Your task to perform on an android device: turn off smart reply in the gmail app Image 0: 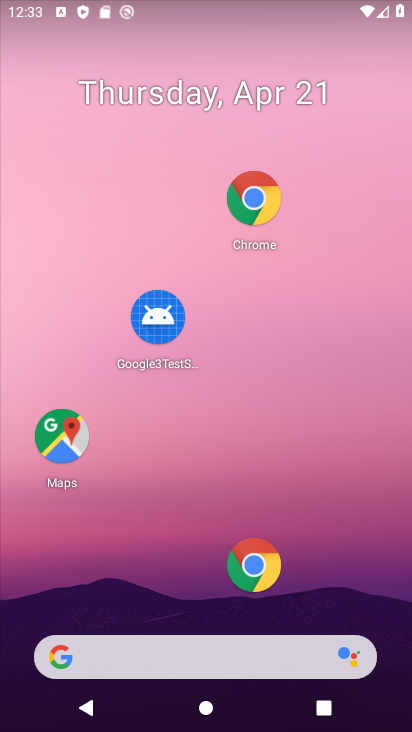
Step 0: drag from (203, 526) to (245, 118)
Your task to perform on an android device: turn off smart reply in the gmail app Image 1: 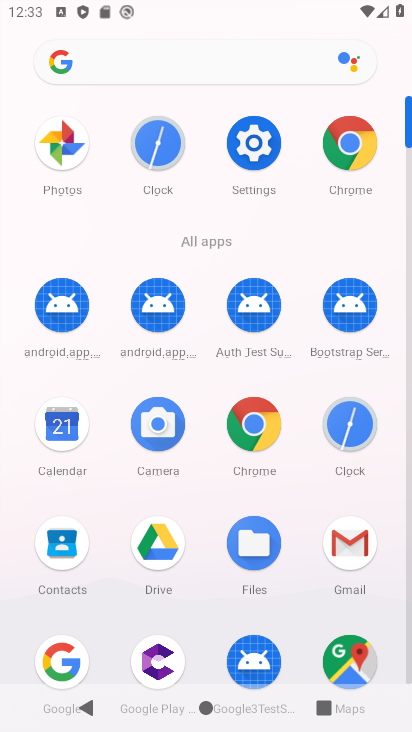
Step 1: click (351, 567)
Your task to perform on an android device: turn off smart reply in the gmail app Image 2: 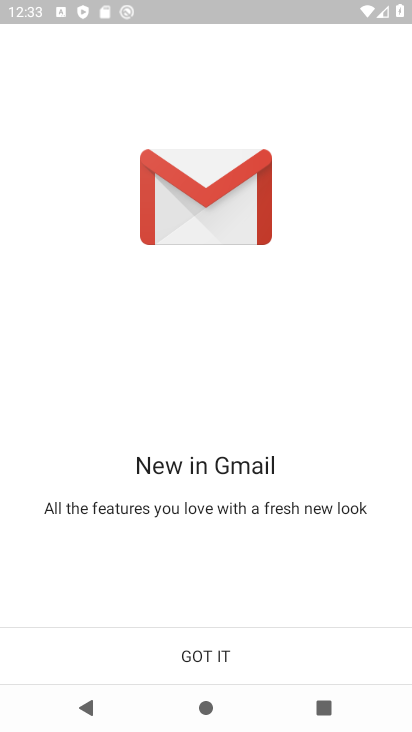
Step 2: click (234, 671)
Your task to perform on an android device: turn off smart reply in the gmail app Image 3: 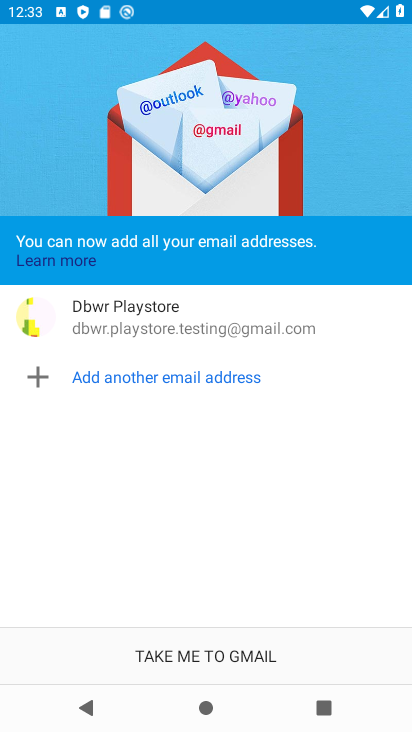
Step 3: click (212, 663)
Your task to perform on an android device: turn off smart reply in the gmail app Image 4: 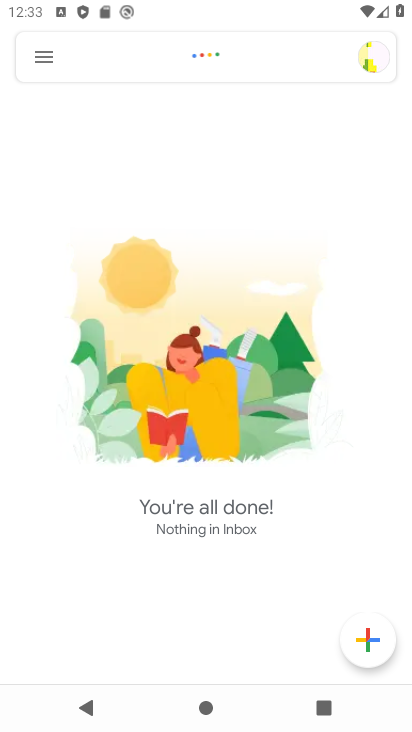
Step 4: click (39, 68)
Your task to perform on an android device: turn off smart reply in the gmail app Image 5: 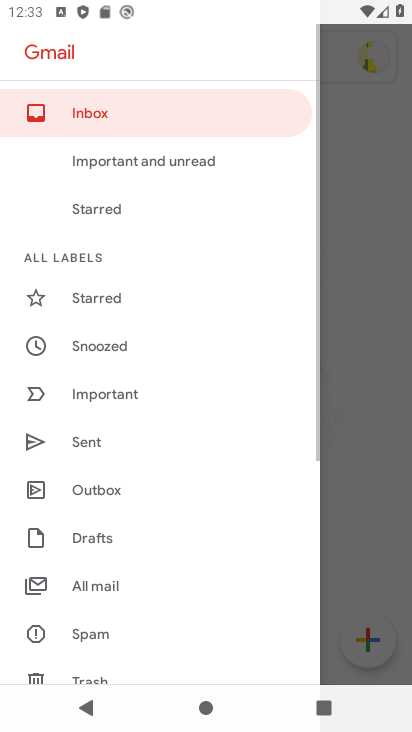
Step 5: drag from (115, 597) to (117, 245)
Your task to perform on an android device: turn off smart reply in the gmail app Image 6: 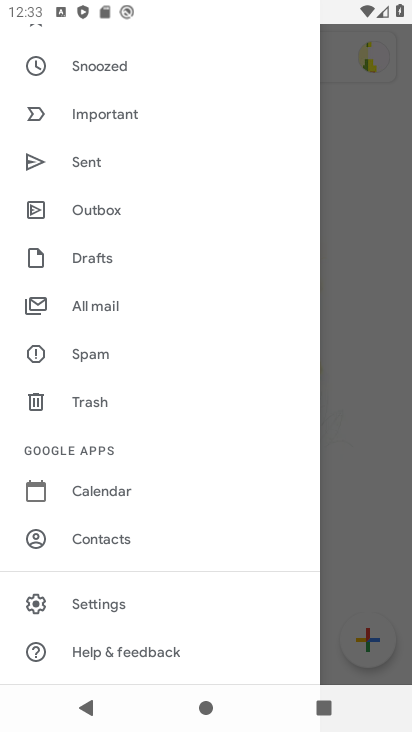
Step 6: click (135, 610)
Your task to perform on an android device: turn off smart reply in the gmail app Image 7: 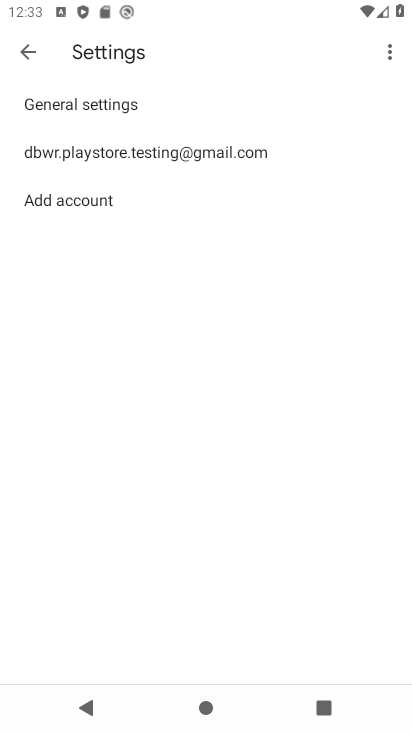
Step 7: click (118, 106)
Your task to perform on an android device: turn off smart reply in the gmail app Image 8: 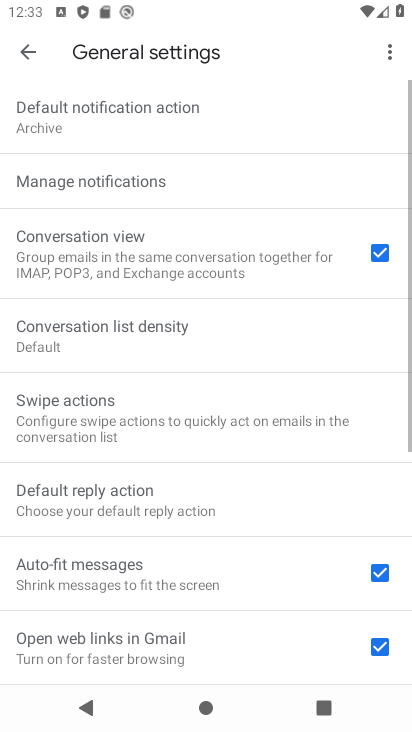
Step 8: drag from (195, 523) to (167, 236)
Your task to perform on an android device: turn off smart reply in the gmail app Image 9: 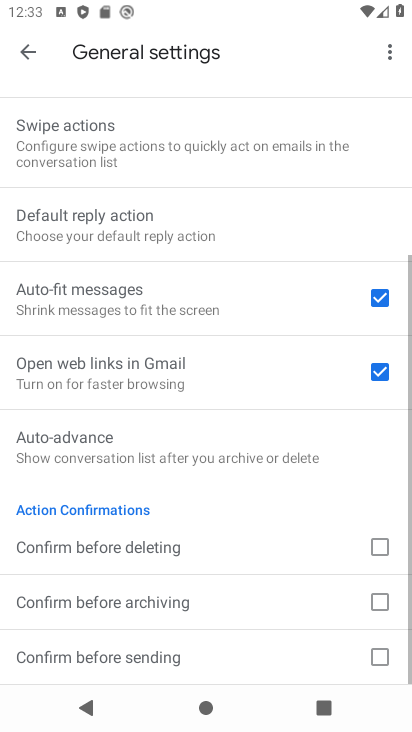
Step 9: drag from (215, 560) to (188, 258)
Your task to perform on an android device: turn off smart reply in the gmail app Image 10: 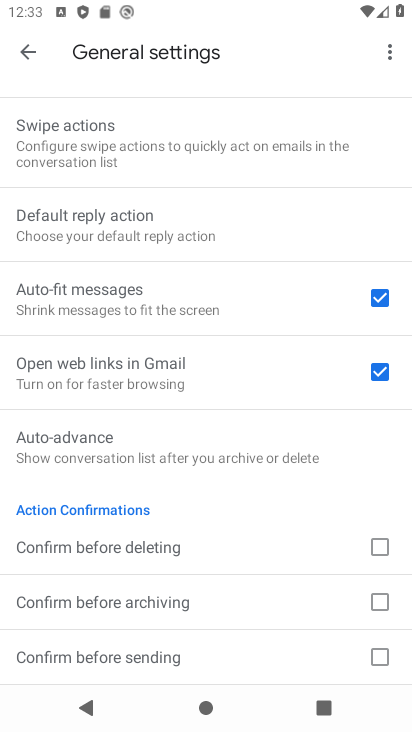
Step 10: drag from (186, 282) to (184, 548)
Your task to perform on an android device: turn off smart reply in the gmail app Image 11: 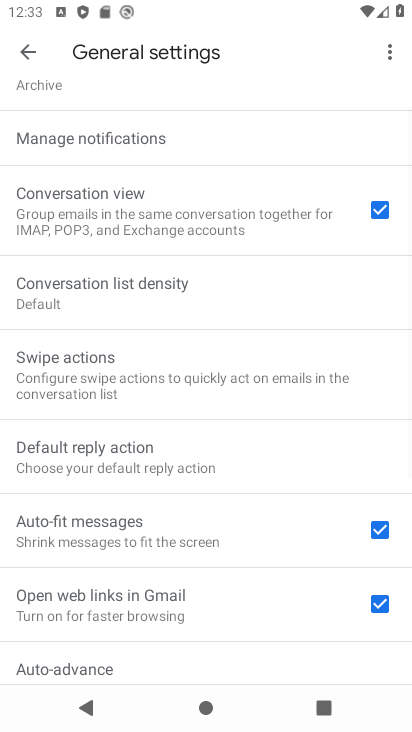
Step 11: click (27, 66)
Your task to perform on an android device: turn off smart reply in the gmail app Image 12: 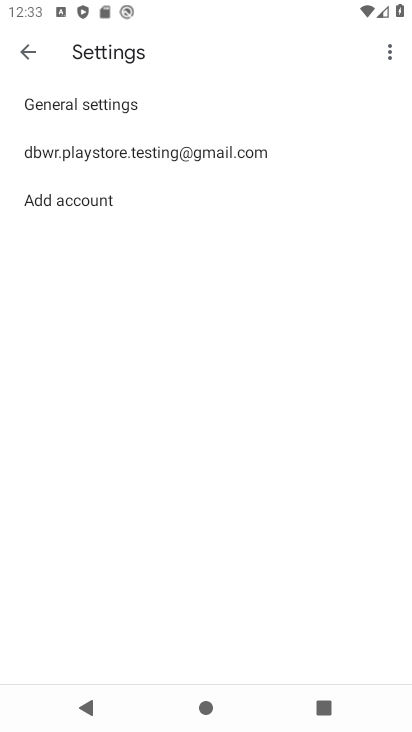
Step 12: click (99, 157)
Your task to perform on an android device: turn off smart reply in the gmail app Image 13: 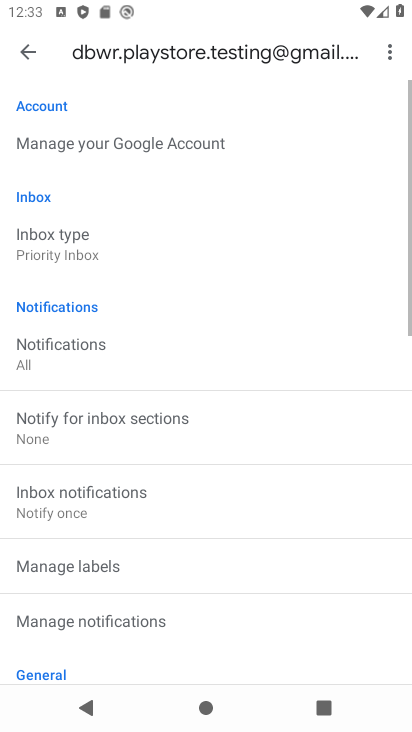
Step 13: drag from (204, 515) to (170, 189)
Your task to perform on an android device: turn off smart reply in the gmail app Image 14: 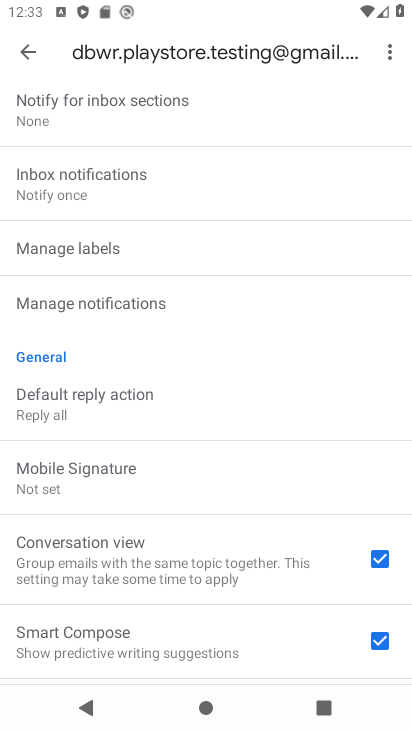
Step 14: drag from (239, 518) to (212, 318)
Your task to perform on an android device: turn off smart reply in the gmail app Image 15: 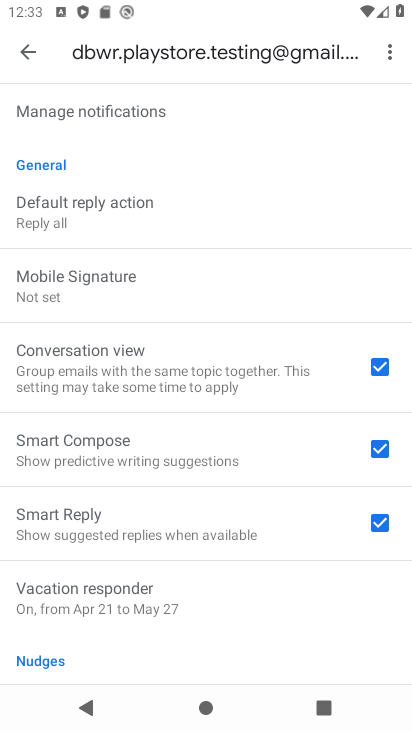
Step 15: click (379, 526)
Your task to perform on an android device: turn off smart reply in the gmail app Image 16: 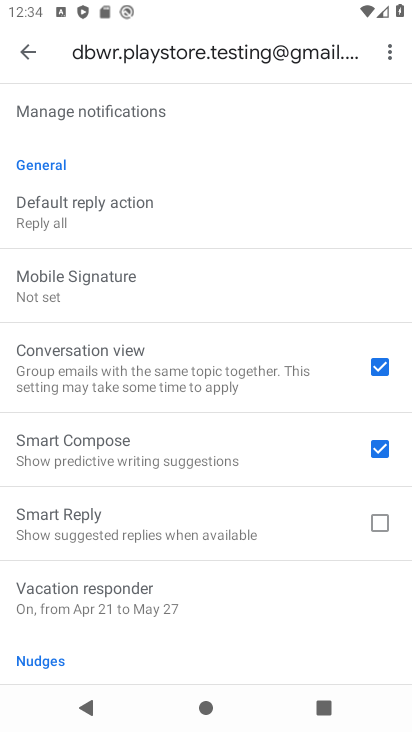
Step 16: task complete